Your task to perform on an android device: Open accessibility settings Image 0: 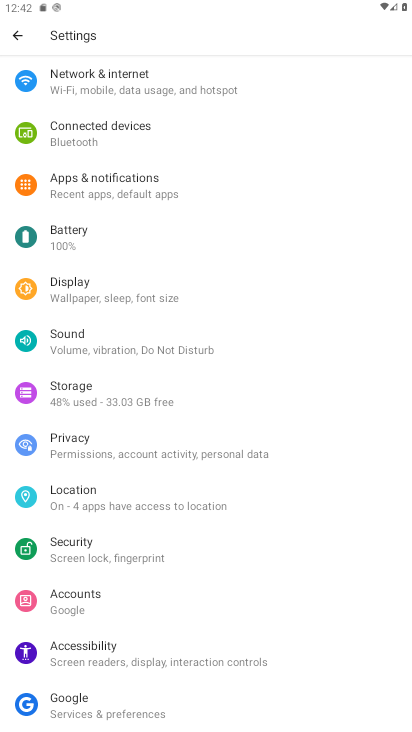
Step 0: click (57, 647)
Your task to perform on an android device: Open accessibility settings Image 1: 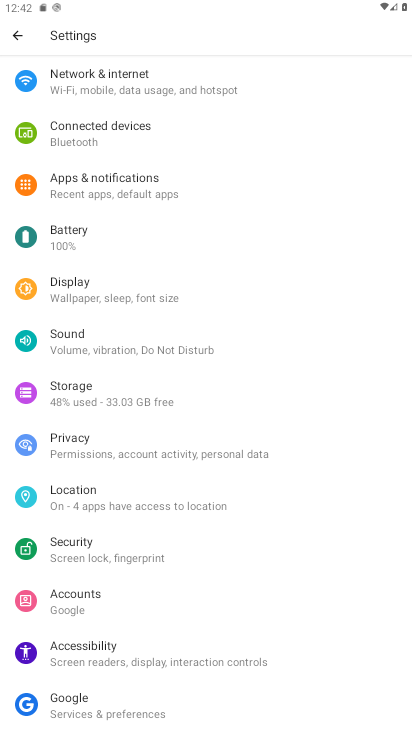
Step 1: click (67, 645)
Your task to perform on an android device: Open accessibility settings Image 2: 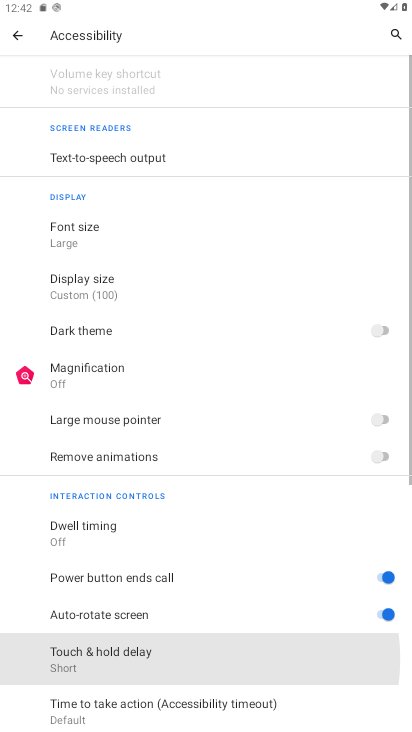
Step 2: click (69, 646)
Your task to perform on an android device: Open accessibility settings Image 3: 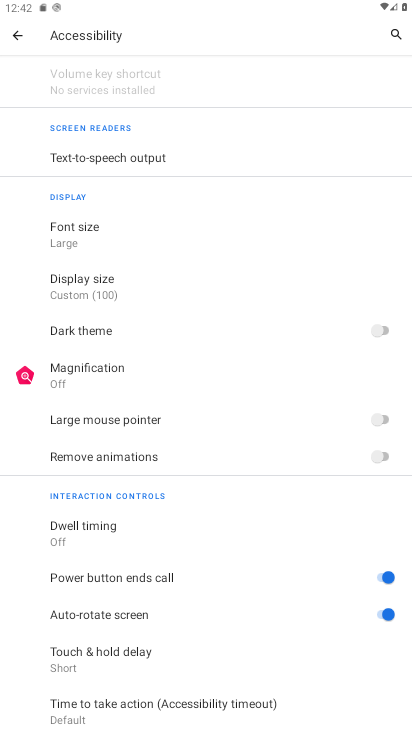
Step 3: task complete